Your task to perform on an android device: Search for flights from Zurich to Buenos aires Image 0: 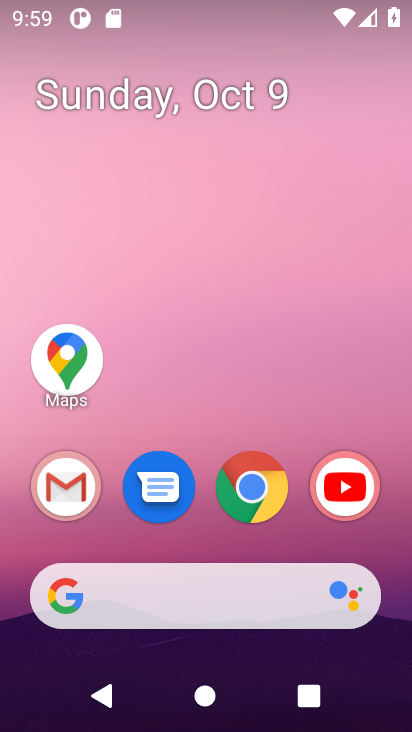
Step 0: click (250, 502)
Your task to perform on an android device: Search for flights from Zurich to Buenos aires Image 1: 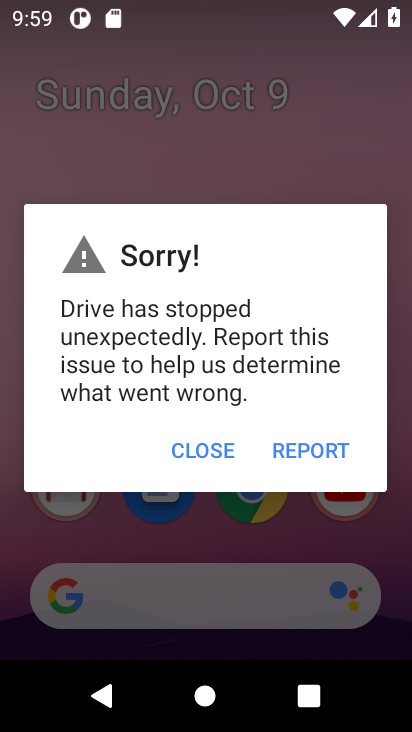
Step 1: click (193, 457)
Your task to perform on an android device: Search for flights from Zurich to Buenos aires Image 2: 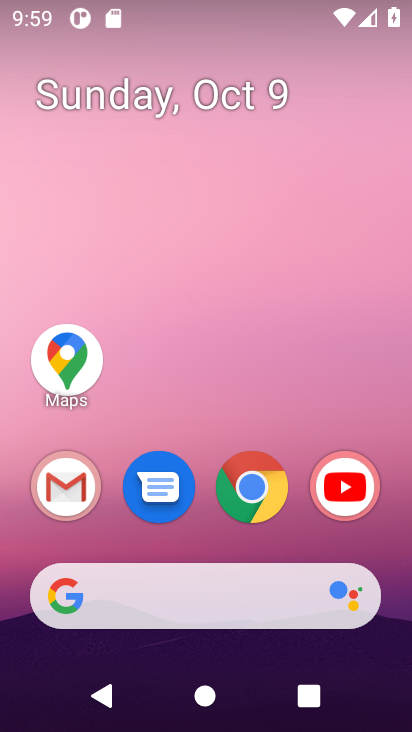
Step 2: click (260, 496)
Your task to perform on an android device: Search for flights from Zurich to Buenos aires Image 3: 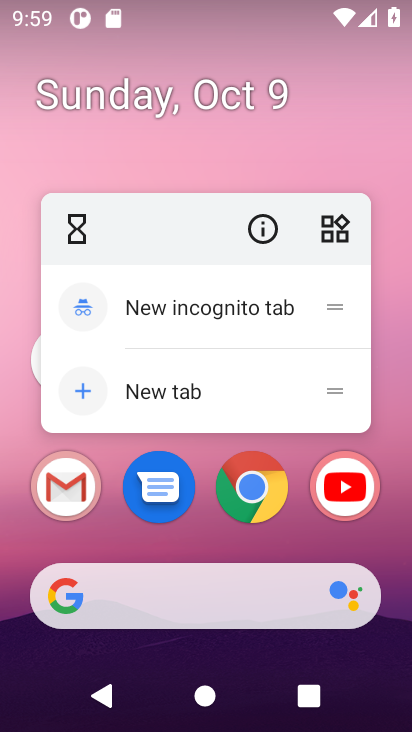
Step 3: click (250, 507)
Your task to perform on an android device: Search for flights from Zurich to Buenos aires Image 4: 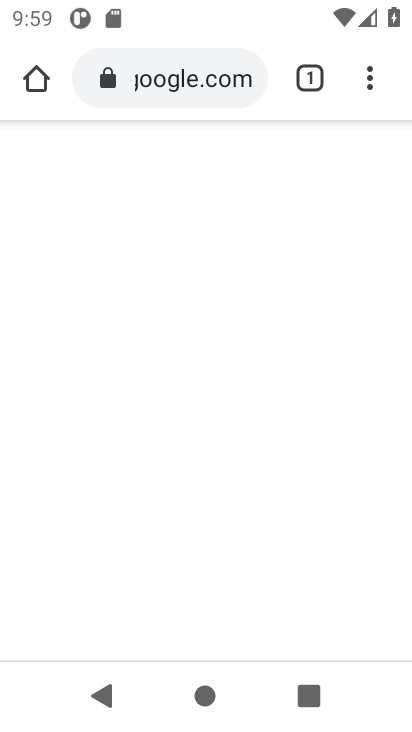
Step 4: click (199, 84)
Your task to perform on an android device: Search for flights from Zurich to Buenos aires Image 5: 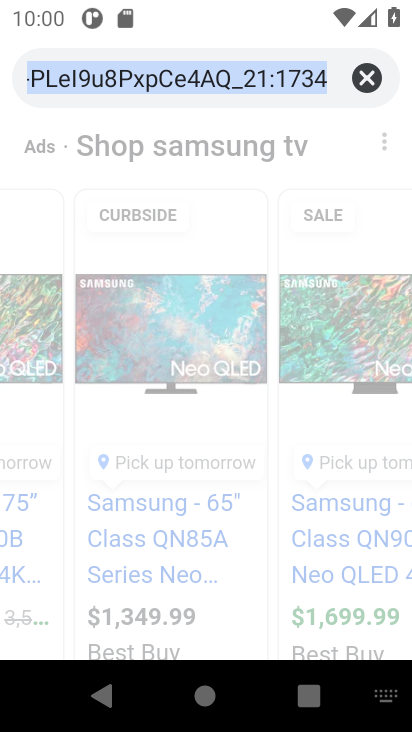
Step 5: type "flight from zurich to buenos aires"
Your task to perform on an android device: Search for flights from Zurich to Buenos aires Image 6: 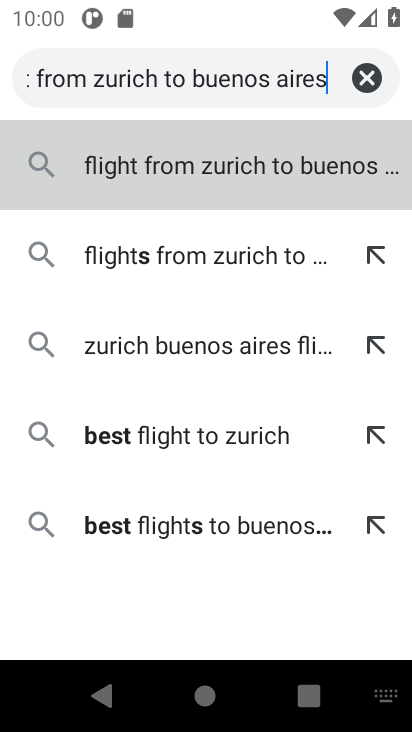
Step 6: type ""
Your task to perform on an android device: Search for flights from Zurich to Buenos aires Image 7: 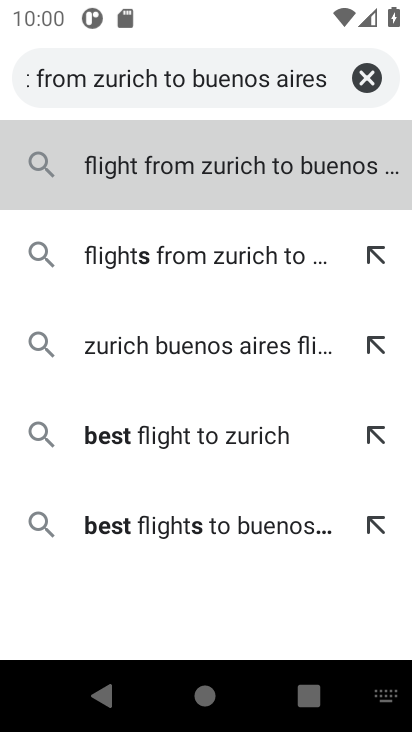
Step 7: press enter
Your task to perform on an android device: Search for flights from Zurich to Buenos aires Image 8: 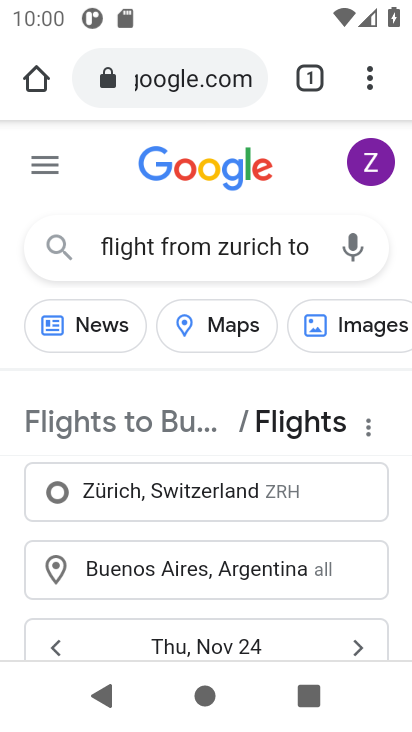
Step 8: drag from (270, 526) to (258, 146)
Your task to perform on an android device: Search for flights from Zurich to Buenos aires Image 9: 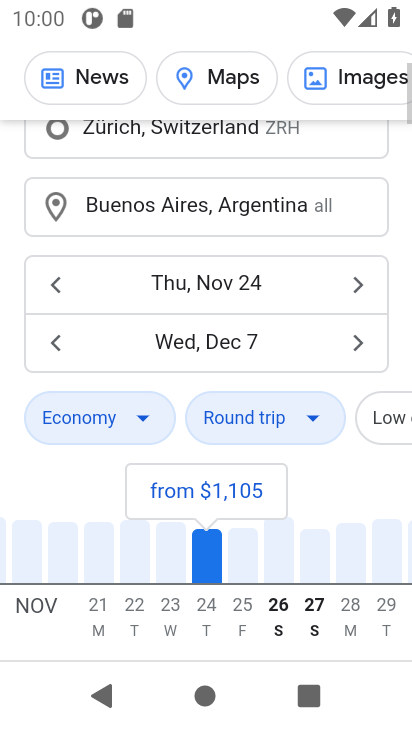
Step 9: drag from (242, 599) to (219, 208)
Your task to perform on an android device: Search for flights from Zurich to Buenos aires Image 10: 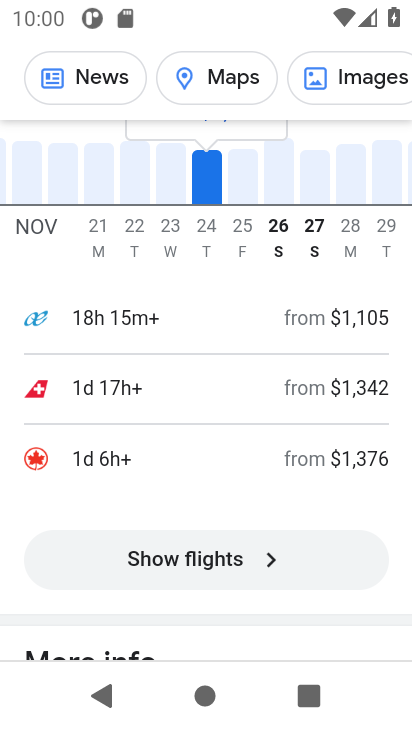
Step 10: drag from (227, 593) to (193, 254)
Your task to perform on an android device: Search for flights from Zurich to Buenos aires Image 11: 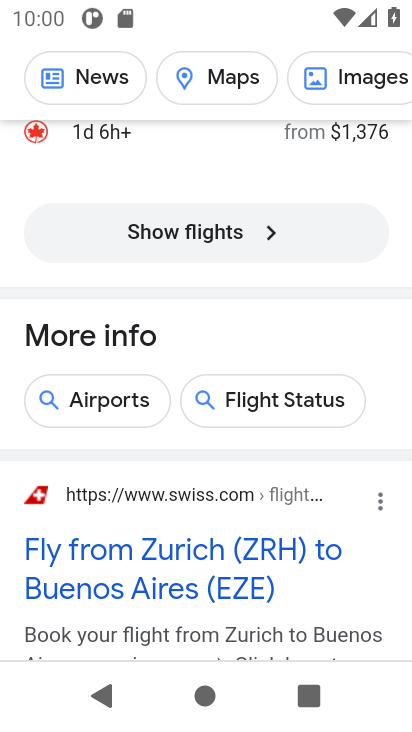
Step 11: drag from (210, 604) to (193, 196)
Your task to perform on an android device: Search for flights from Zurich to Buenos aires Image 12: 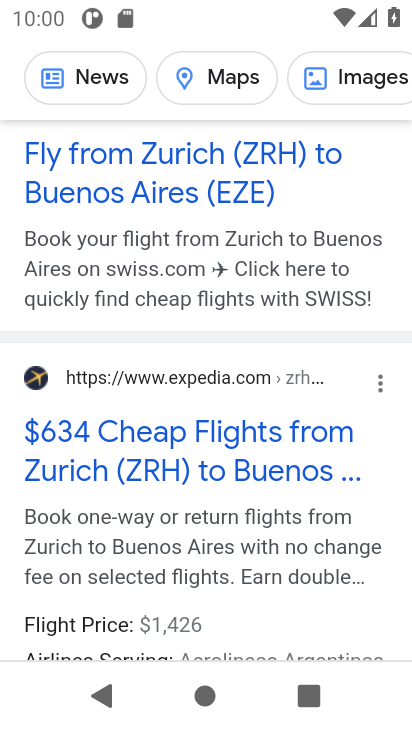
Step 12: drag from (213, 617) to (180, 214)
Your task to perform on an android device: Search for flights from Zurich to Buenos aires Image 13: 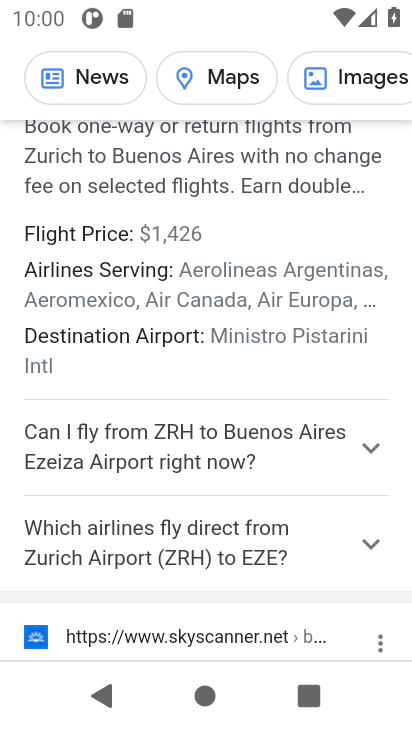
Step 13: drag from (222, 579) to (186, 301)
Your task to perform on an android device: Search for flights from Zurich to Buenos aires Image 14: 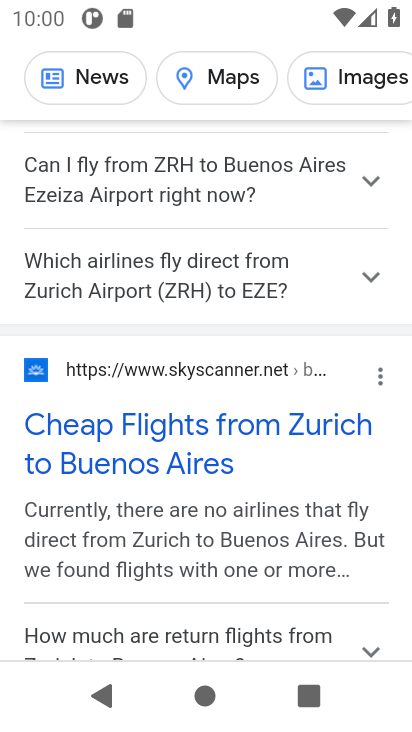
Step 14: click (151, 439)
Your task to perform on an android device: Search for flights from Zurich to Buenos aires Image 15: 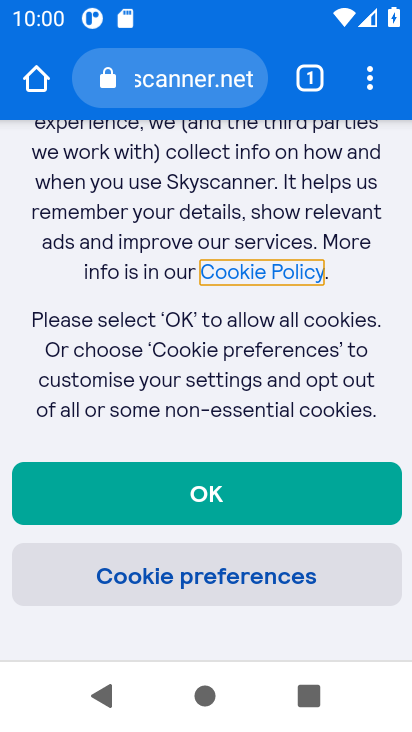
Step 15: click (230, 511)
Your task to perform on an android device: Search for flights from Zurich to Buenos aires Image 16: 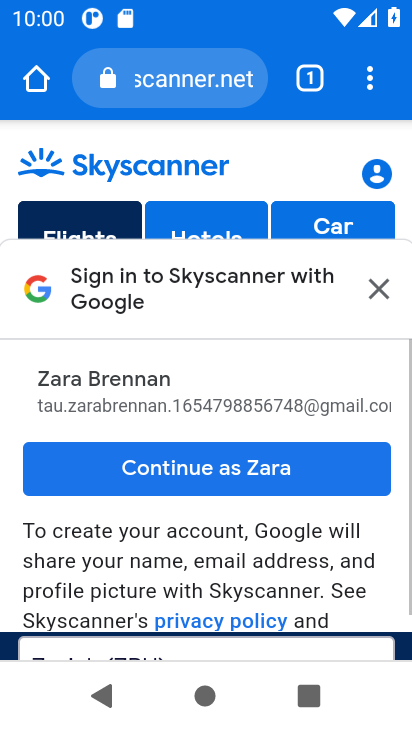
Step 16: drag from (317, 573) to (282, 318)
Your task to perform on an android device: Search for flights from Zurich to Buenos aires Image 17: 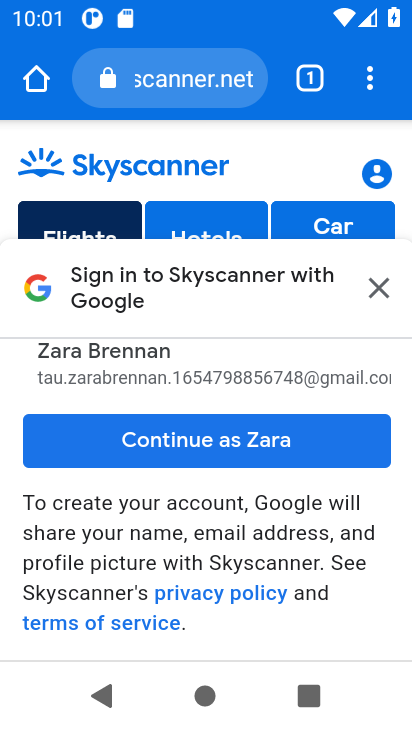
Step 17: click (297, 443)
Your task to perform on an android device: Search for flights from Zurich to Buenos aires Image 18: 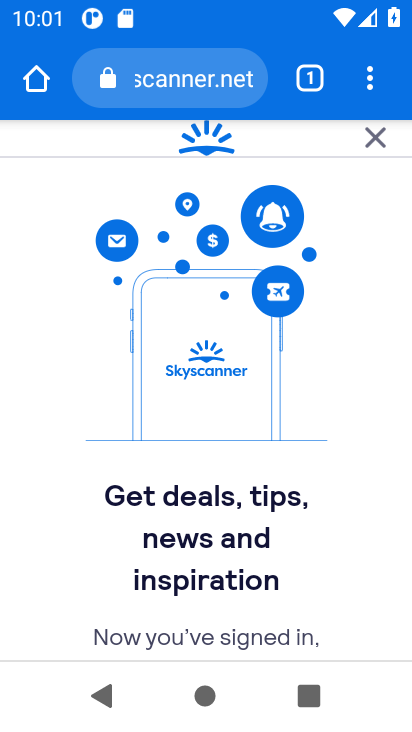
Step 18: drag from (200, 583) to (157, 260)
Your task to perform on an android device: Search for flights from Zurich to Buenos aires Image 19: 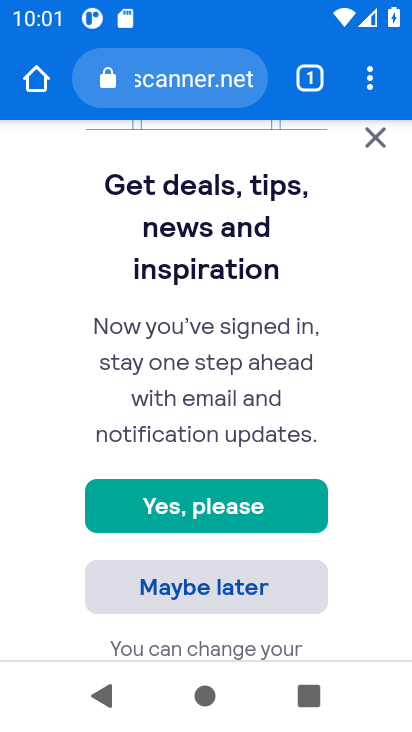
Step 19: drag from (280, 527) to (262, 226)
Your task to perform on an android device: Search for flights from Zurich to Buenos aires Image 20: 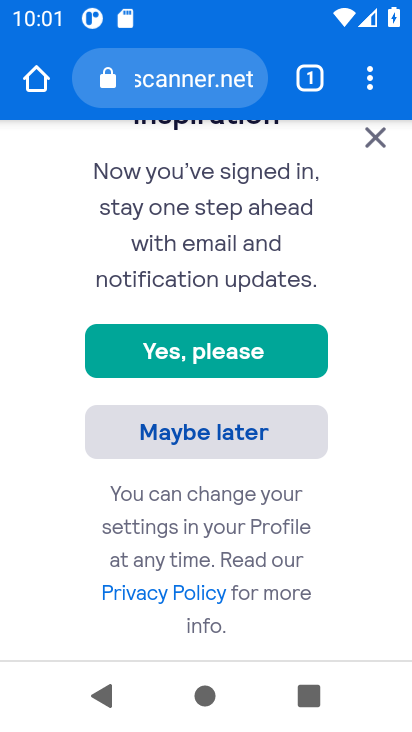
Step 20: click (376, 134)
Your task to perform on an android device: Search for flights from Zurich to Buenos aires Image 21: 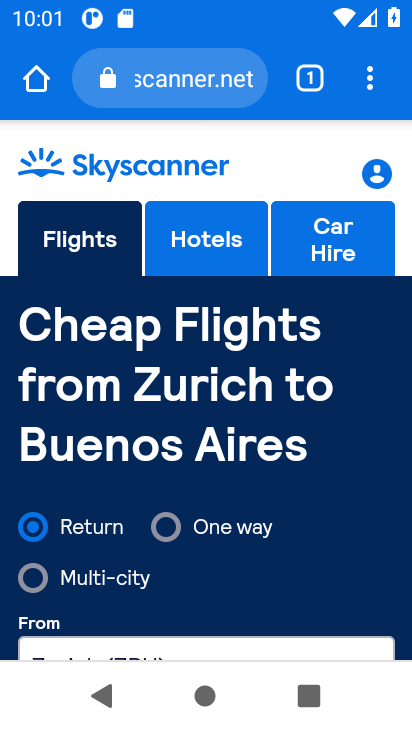
Step 21: drag from (306, 538) to (263, 235)
Your task to perform on an android device: Search for flights from Zurich to Buenos aires Image 22: 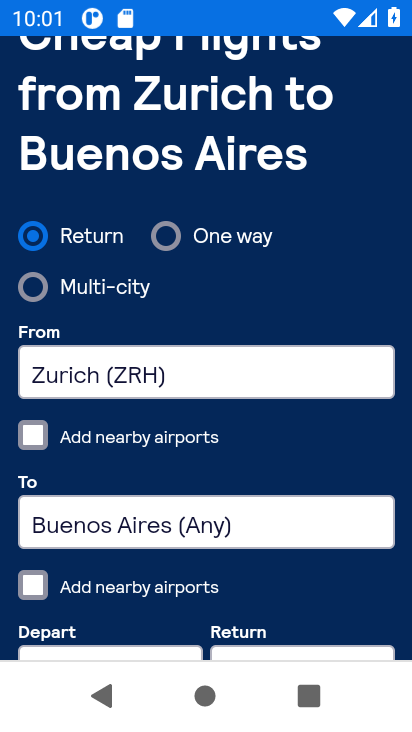
Step 22: drag from (226, 597) to (195, 253)
Your task to perform on an android device: Search for flights from Zurich to Buenos aires Image 23: 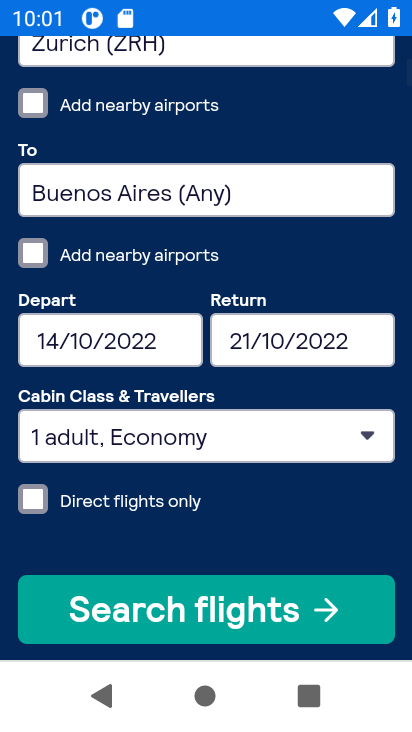
Step 23: drag from (251, 519) to (208, 257)
Your task to perform on an android device: Search for flights from Zurich to Buenos aires Image 24: 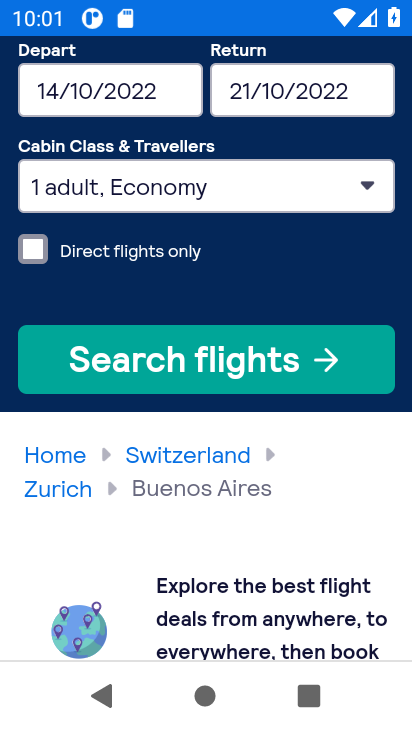
Step 24: drag from (201, 630) to (201, 271)
Your task to perform on an android device: Search for flights from Zurich to Buenos aires Image 25: 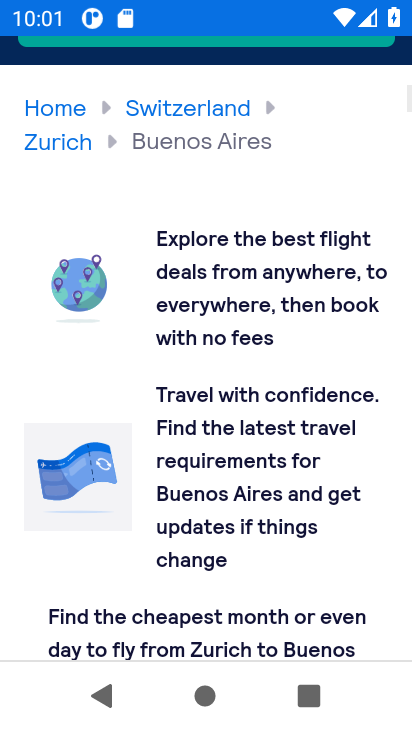
Step 25: drag from (254, 493) to (223, 288)
Your task to perform on an android device: Search for flights from Zurich to Buenos aires Image 26: 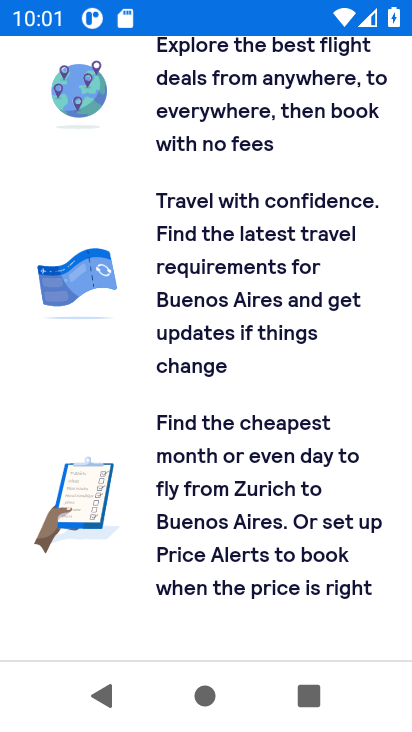
Step 26: drag from (229, 559) to (230, 282)
Your task to perform on an android device: Search for flights from Zurich to Buenos aires Image 27: 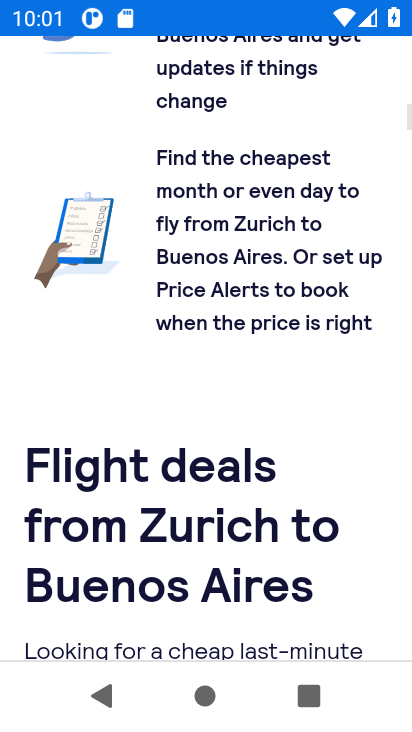
Step 27: drag from (245, 247) to (274, 624)
Your task to perform on an android device: Search for flights from Zurich to Buenos aires Image 28: 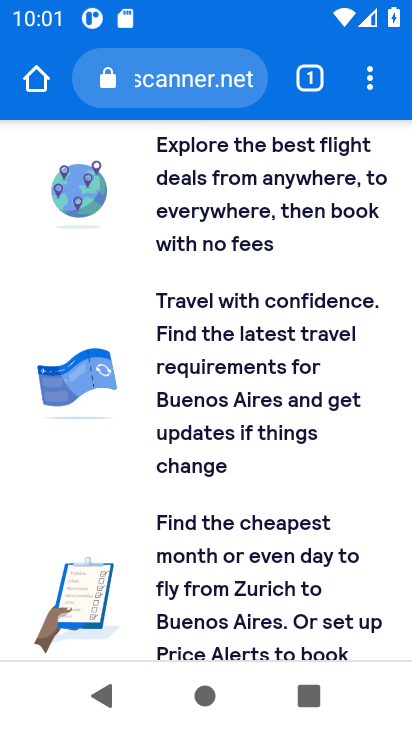
Step 28: drag from (242, 299) to (254, 522)
Your task to perform on an android device: Search for flights from Zurich to Buenos aires Image 29: 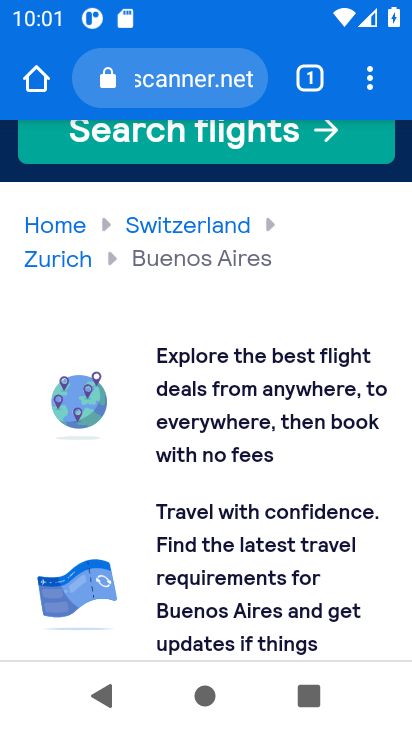
Step 29: drag from (254, 309) to (260, 668)
Your task to perform on an android device: Search for flights from Zurich to Buenos aires Image 30: 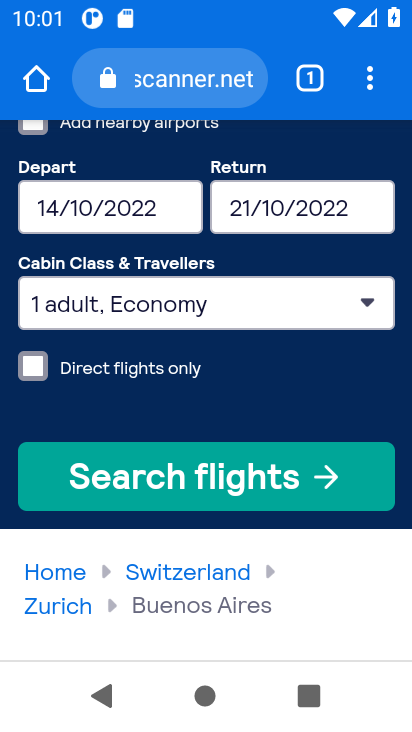
Step 30: click (245, 482)
Your task to perform on an android device: Search for flights from Zurich to Buenos aires Image 31: 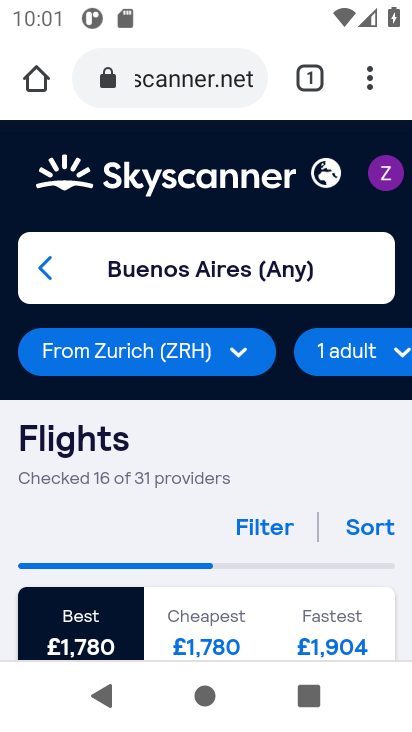
Step 31: task complete